Your task to perform on an android device: What is the news today? Image 0: 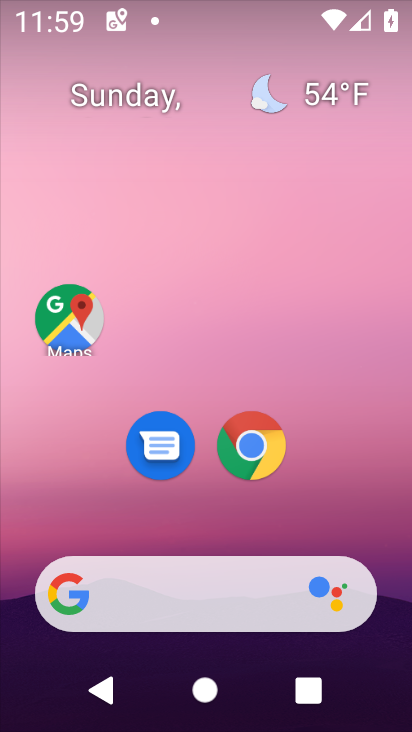
Step 0: drag from (373, 467) to (376, 112)
Your task to perform on an android device: What is the news today? Image 1: 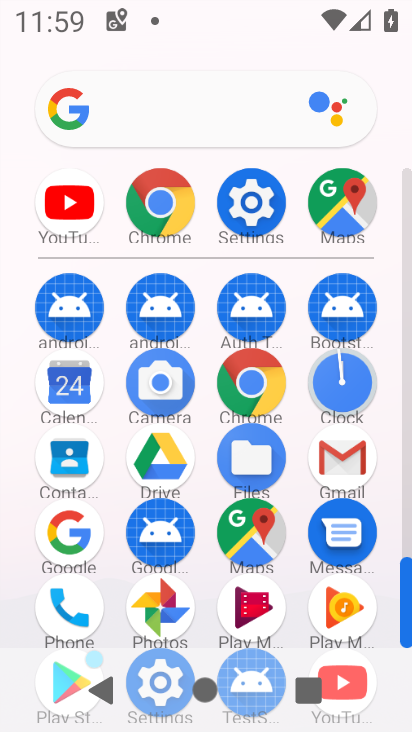
Step 1: click (266, 398)
Your task to perform on an android device: What is the news today? Image 2: 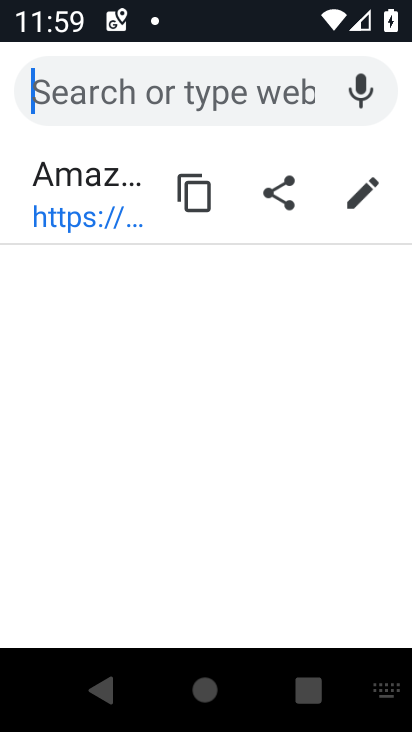
Step 2: click (257, 85)
Your task to perform on an android device: What is the news today? Image 3: 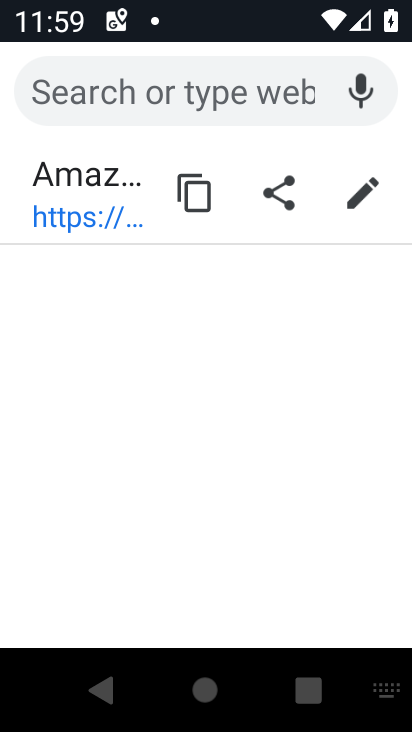
Step 3: type "news today"
Your task to perform on an android device: What is the news today? Image 4: 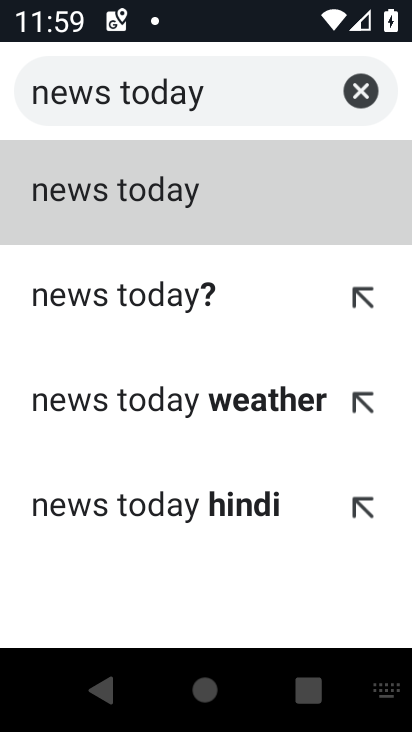
Step 4: click (150, 204)
Your task to perform on an android device: What is the news today? Image 5: 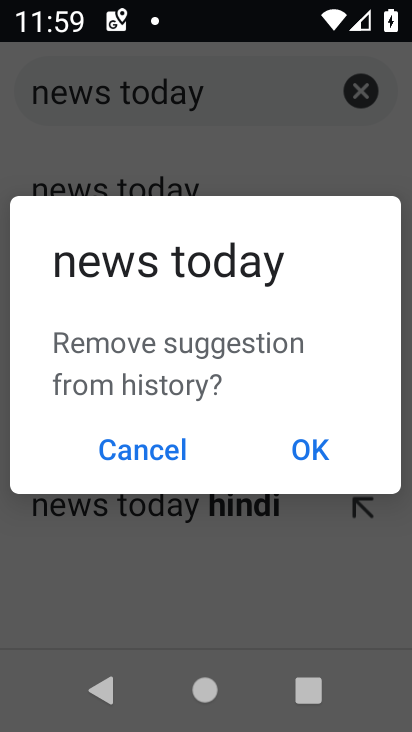
Step 5: click (294, 441)
Your task to perform on an android device: What is the news today? Image 6: 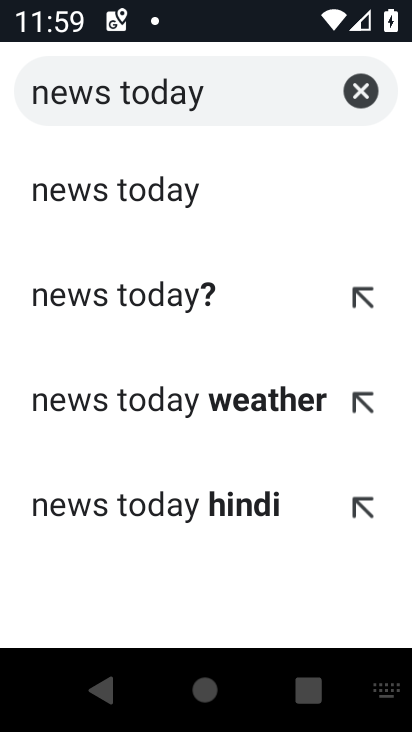
Step 6: click (118, 199)
Your task to perform on an android device: What is the news today? Image 7: 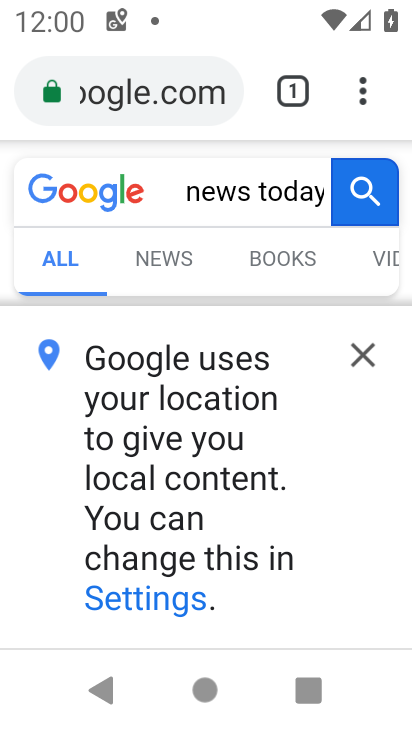
Step 7: click (367, 352)
Your task to perform on an android device: What is the news today? Image 8: 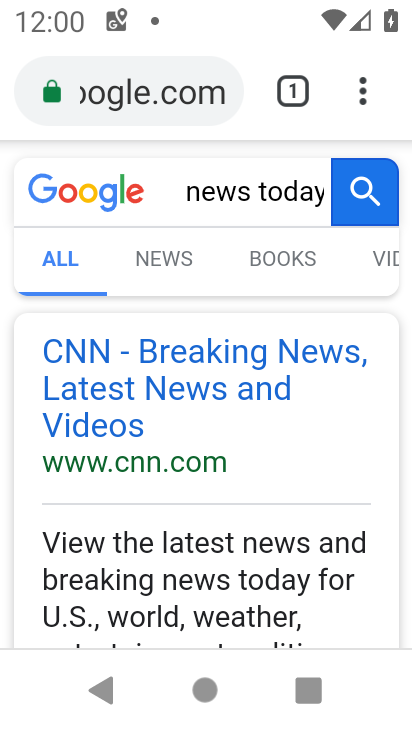
Step 8: click (164, 398)
Your task to perform on an android device: What is the news today? Image 9: 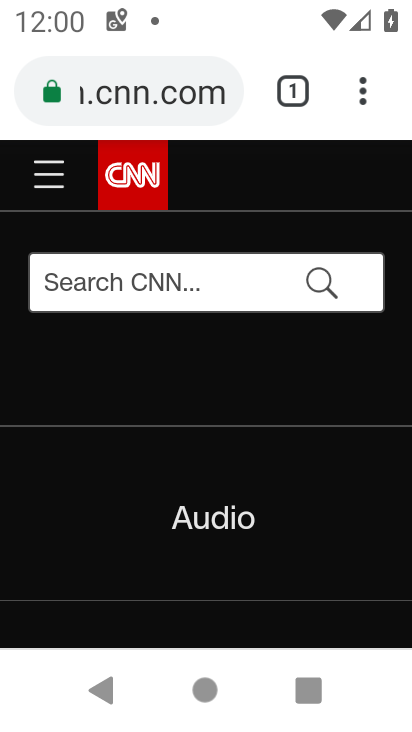
Step 9: task complete